Your task to perform on an android device: Show me recent news Image 0: 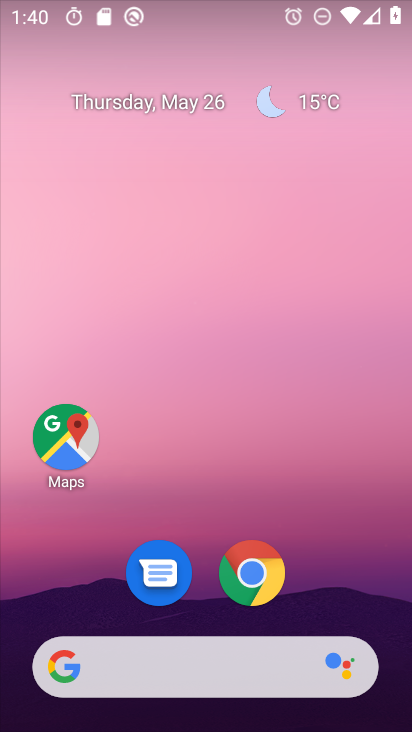
Step 0: click (119, 676)
Your task to perform on an android device: Show me recent news Image 1: 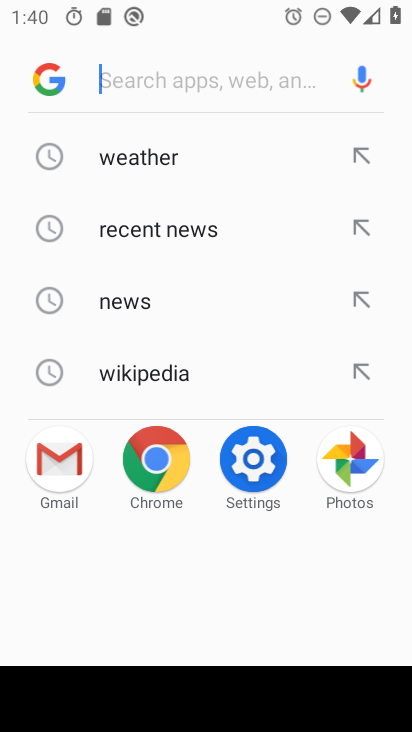
Step 1: click (126, 226)
Your task to perform on an android device: Show me recent news Image 2: 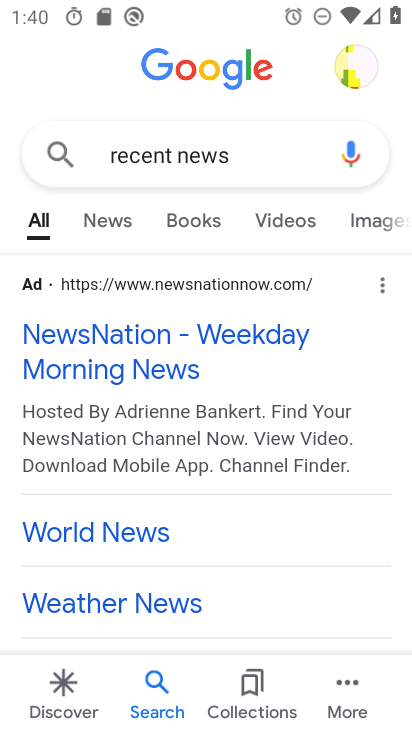
Step 2: click (105, 224)
Your task to perform on an android device: Show me recent news Image 3: 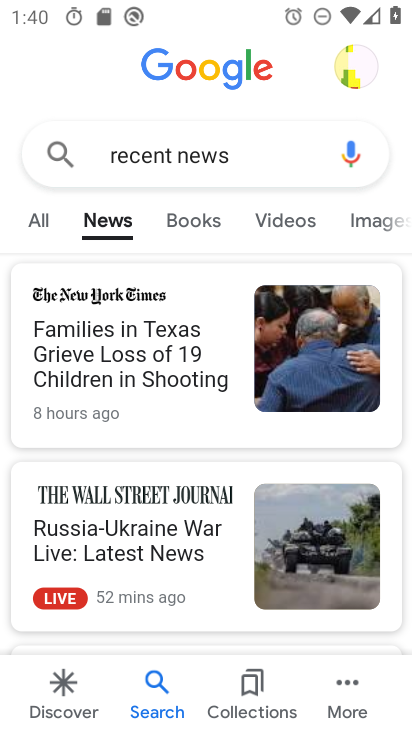
Step 3: click (157, 551)
Your task to perform on an android device: Show me recent news Image 4: 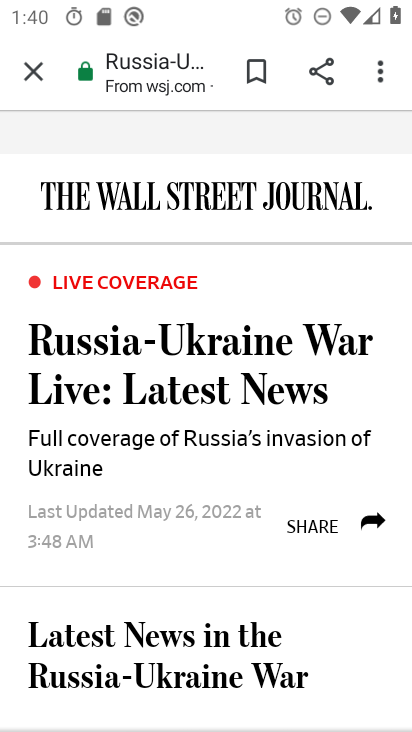
Step 4: task complete